Your task to perform on an android device: find photos in the google photos app Image 0: 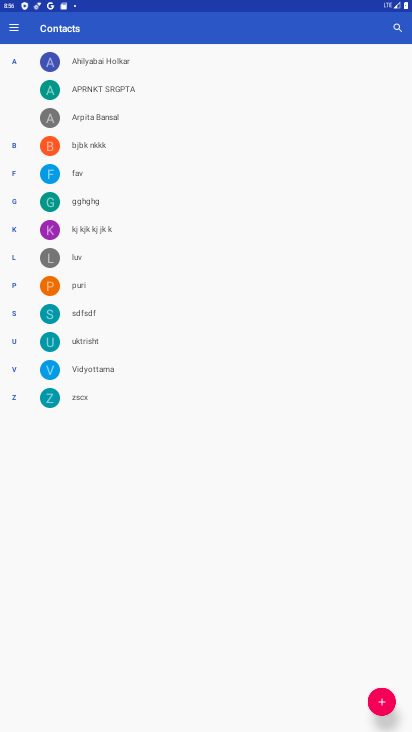
Step 0: press home button
Your task to perform on an android device: find photos in the google photos app Image 1: 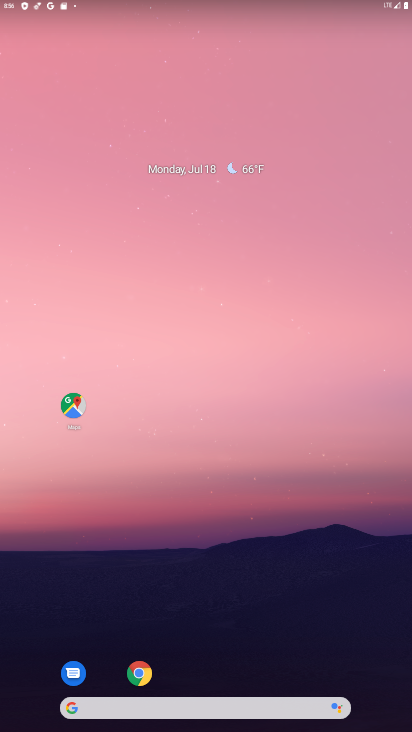
Step 1: drag from (194, 676) to (244, 138)
Your task to perform on an android device: find photos in the google photos app Image 2: 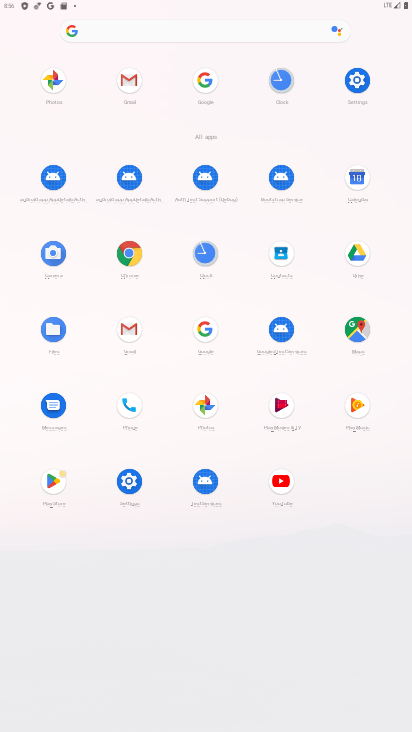
Step 2: click (204, 403)
Your task to perform on an android device: find photos in the google photos app Image 3: 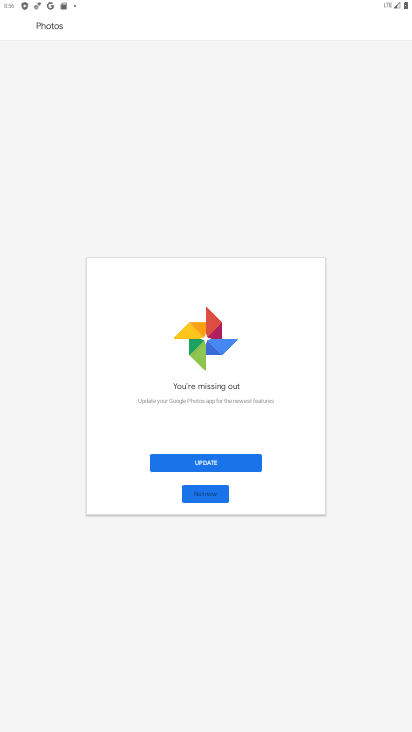
Step 3: click (196, 463)
Your task to perform on an android device: find photos in the google photos app Image 4: 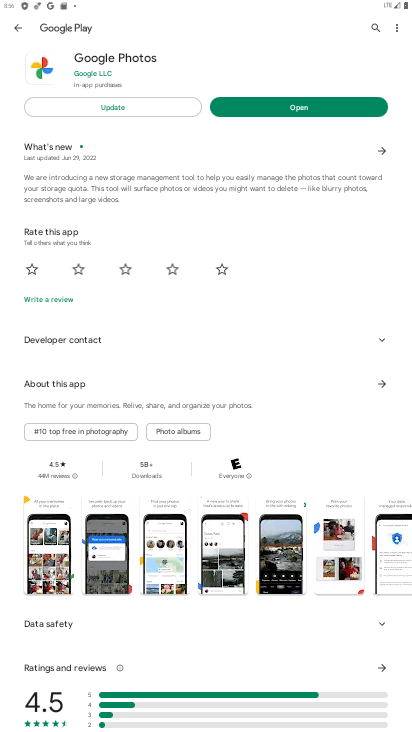
Step 4: click (111, 102)
Your task to perform on an android device: find photos in the google photos app Image 5: 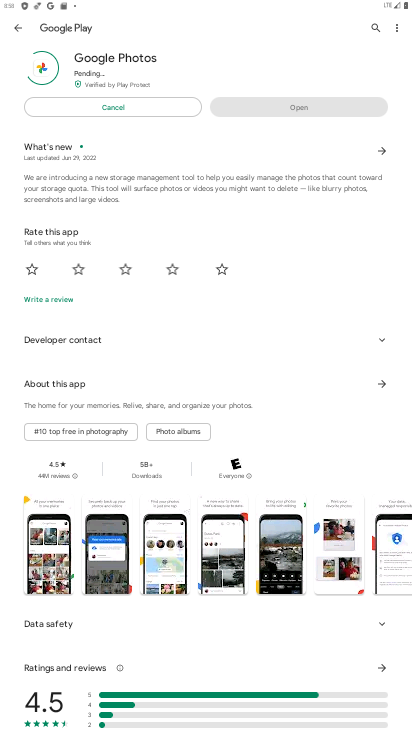
Step 5: task complete